Your task to perform on an android device: Open Google Chrome and open the bookmarks view Image 0: 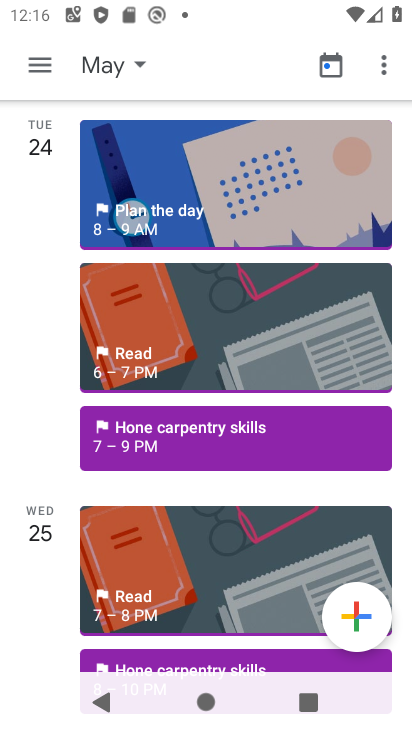
Step 0: press home button
Your task to perform on an android device: Open Google Chrome and open the bookmarks view Image 1: 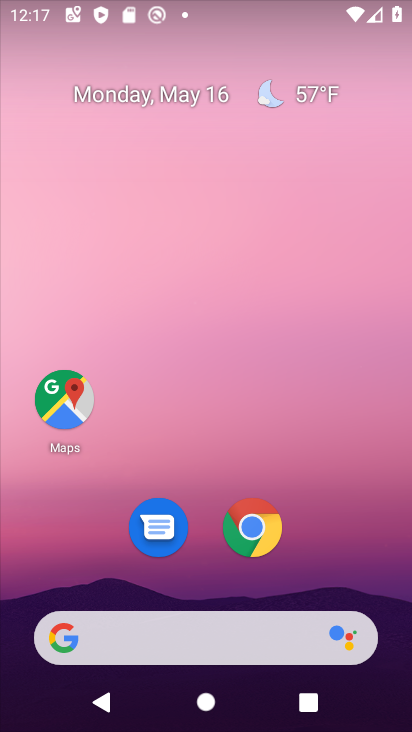
Step 1: drag from (218, 579) to (279, 238)
Your task to perform on an android device: Open Google Chrome and open the bookmarks view Image 2: 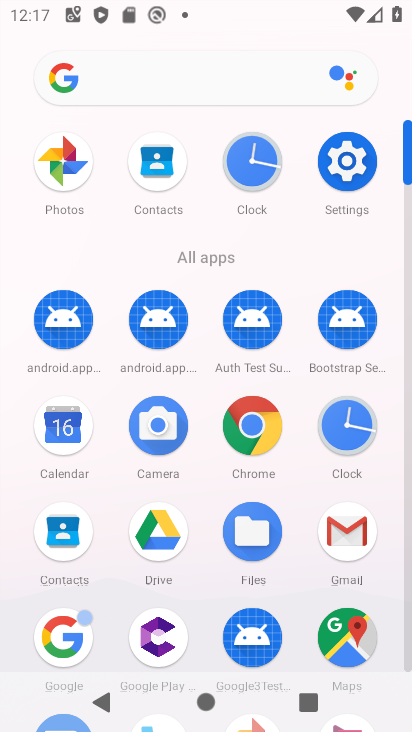
Step 2: click (254, 426)
Your task to perform on an android device: Open Google Chrome and open the bookmarks view Image 3: 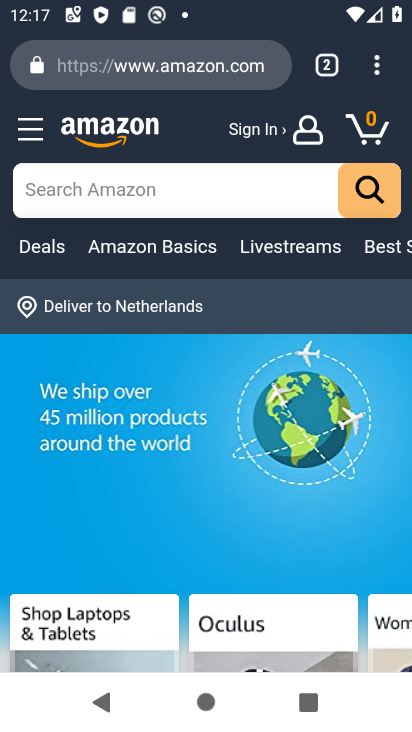
Step 3: click (376, 82)
Your task to perform on an android device: Open Google Chrome and open the bookmarks view Image 4: 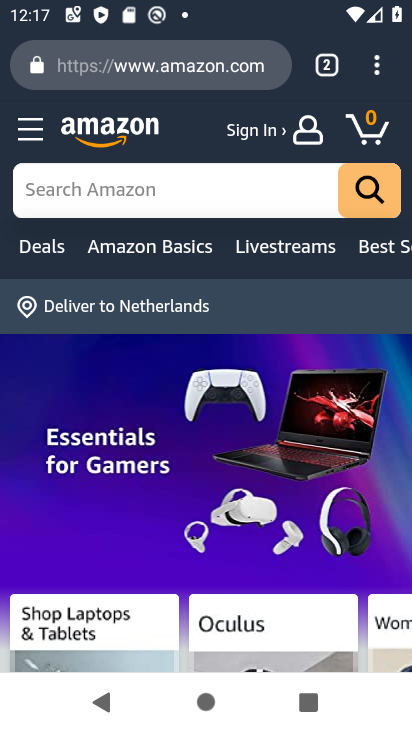
Step 4: click (372, 67)
Your task to perform on an android device: Open Google Chrome and open the bookmarks view Image 5: 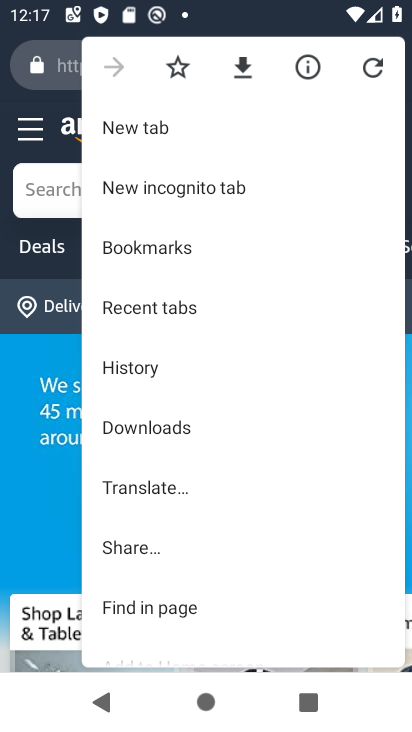
Step 5: click (162, 253)
Your task to perform on an android device: Open Google Chrome and open the bookmarks view Image 6: 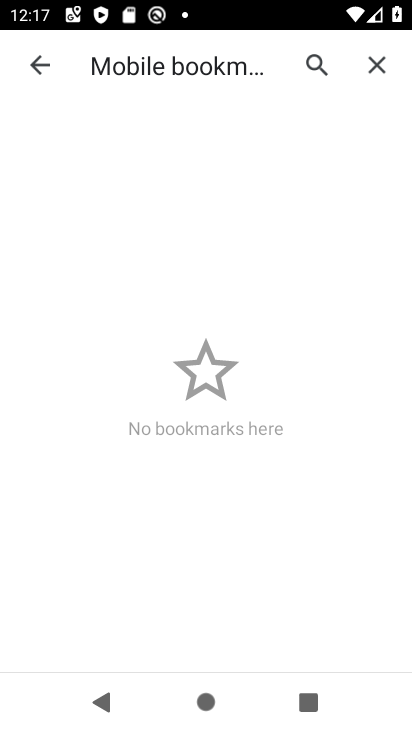
Step 6: task complete